Your task to perform on an android device: Go to settings Image 0: 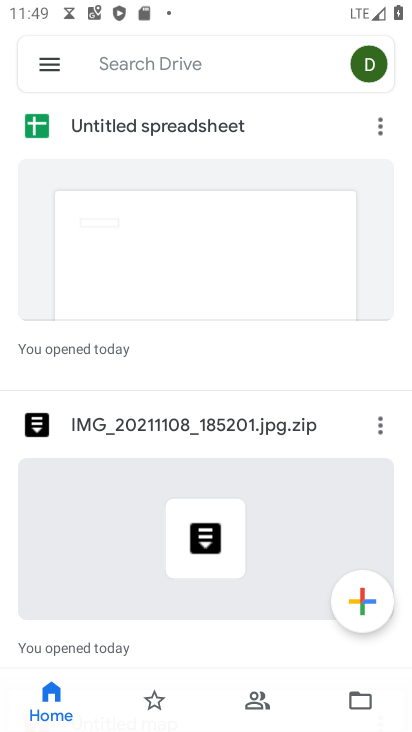
Step 0: press home button
Your task to perform on an android device: Go to settings Image 1: 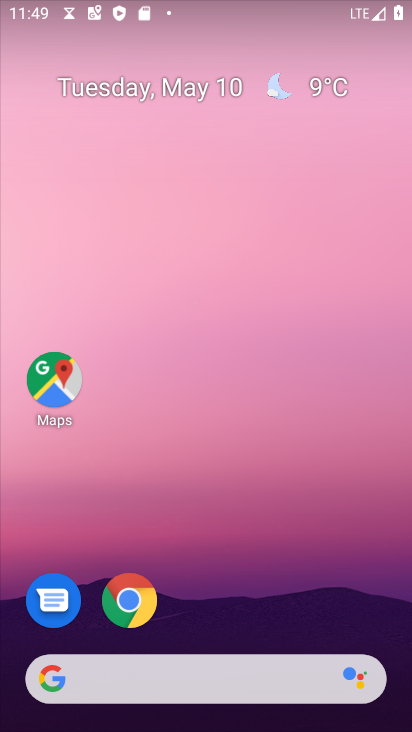
Step 1: drag from (239, 325) to (212, 68)
Your task to perform on an android device: Go to settings Image 2: 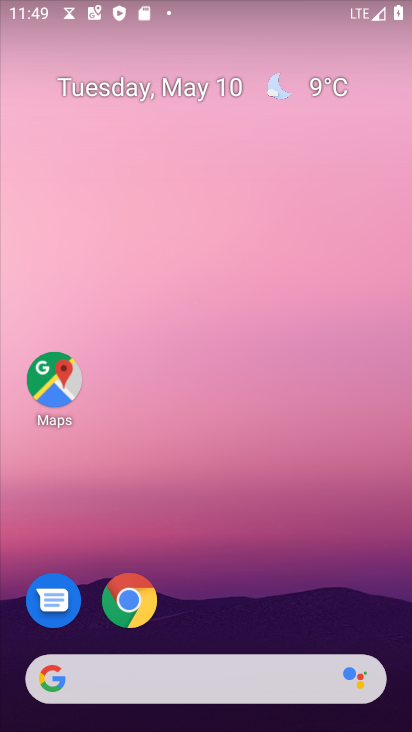
Step 2: drag from (226, 228) to (215, 1)
Your task to perform on an android device: Go to settings Image 3: 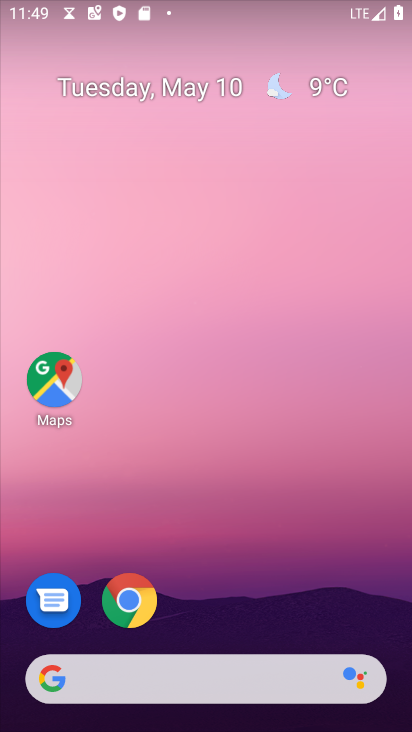
Step 3: drag from (216, 329) to (207, 4)
Your task to perform on an android device: Go to settings Image 4: 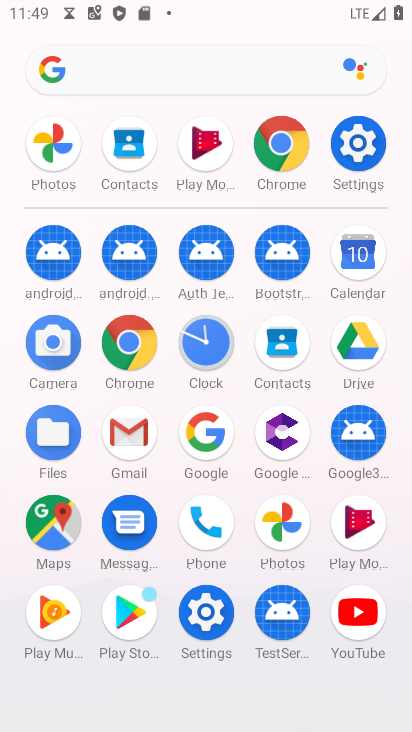
Step 4: click (364, 135)
Your task to perform on an android device: Go to settings Image 5: 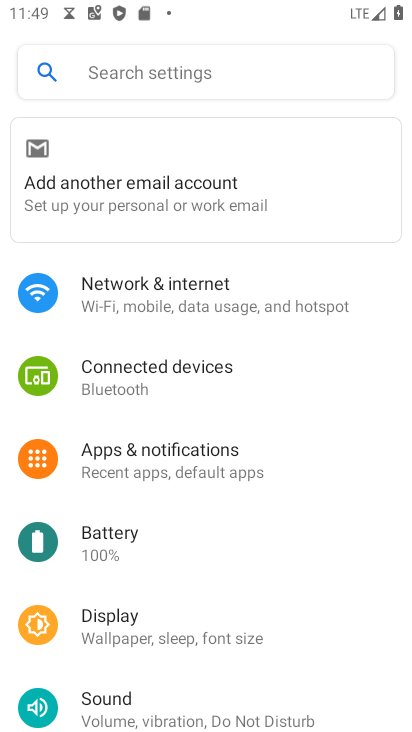
Step 5: task complete